Your task to perform on an android device: open the mobile data screen to see how much data has been used Image 0: 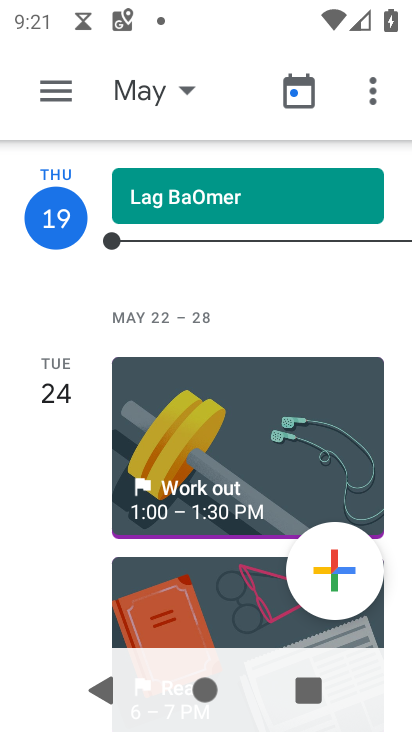
Step 0: press home button
Your task to perform on an android device: open the mobile data screen to see how much data has been used Image 1: 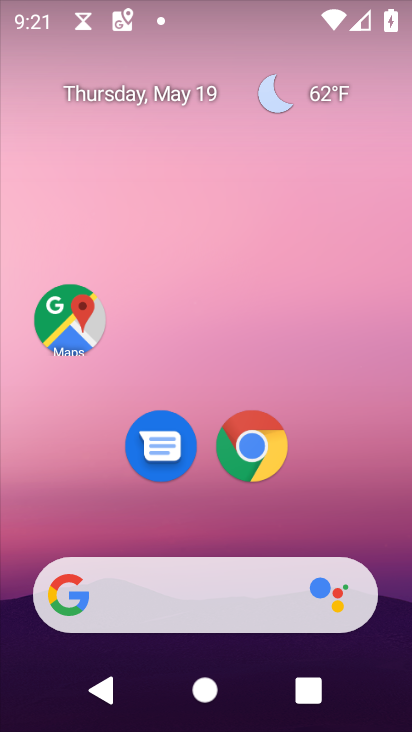
Step 1: drag from (222, 538) to (204, 17)
Your task to perform on an android device: open the mobile data screen to see how much data has been used Image 2: 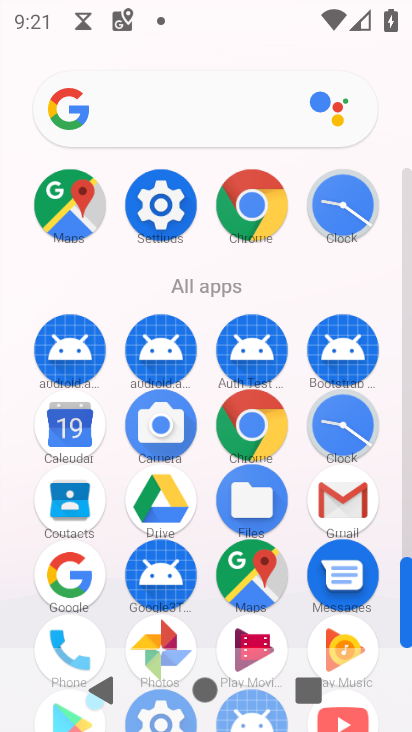
Step 2: click (157, 199)
Your task to perform on an android device: open the mobile data screen to see how much data has been used Image 3: 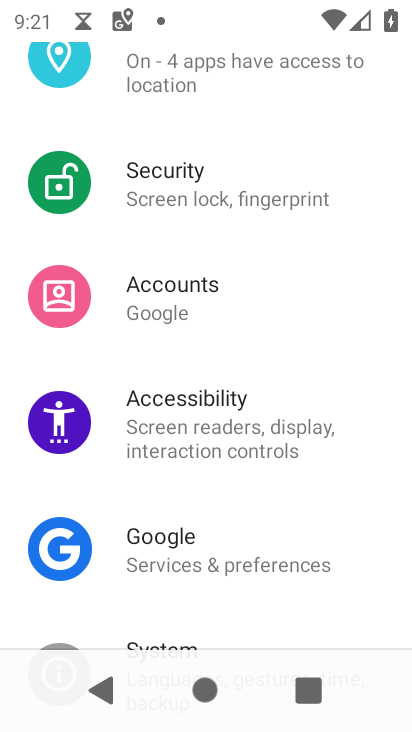
Step 3: drag from (152, 210) to (185, 367)
Your task to perform on an android device: open the mobile data screen to see how much data has been used Image 4: 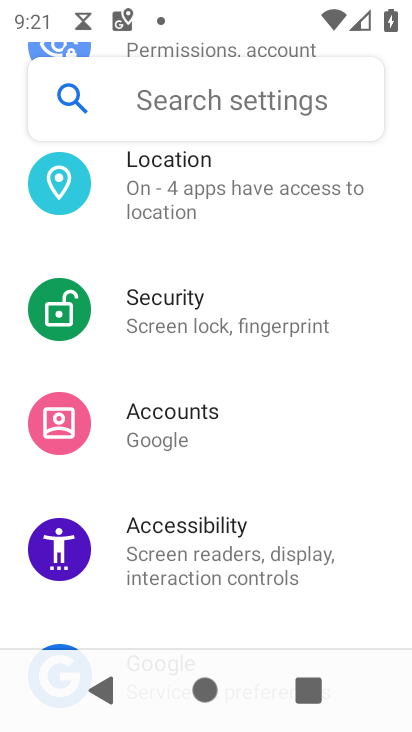
Step 4: drag from (175, 207) to (201, 454)
Your task to perform on an android device: open the mobile data screen to see how much data has been used Image 5: 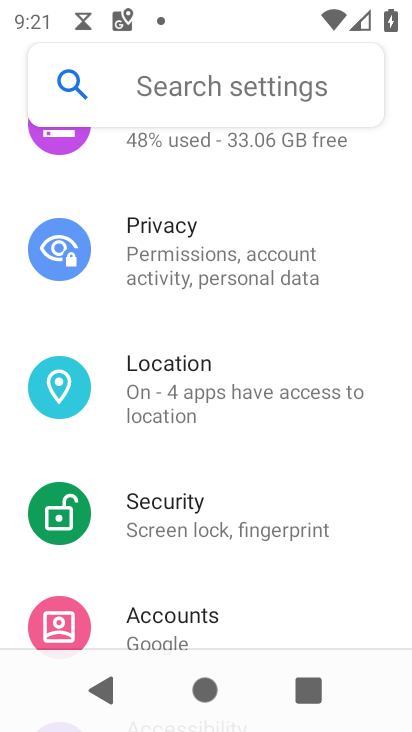
Step 5: drag from (178, 332) to (165, 505)
Your task to perform on an android device: open the mobile data screen to see how much data has been used Image 6: 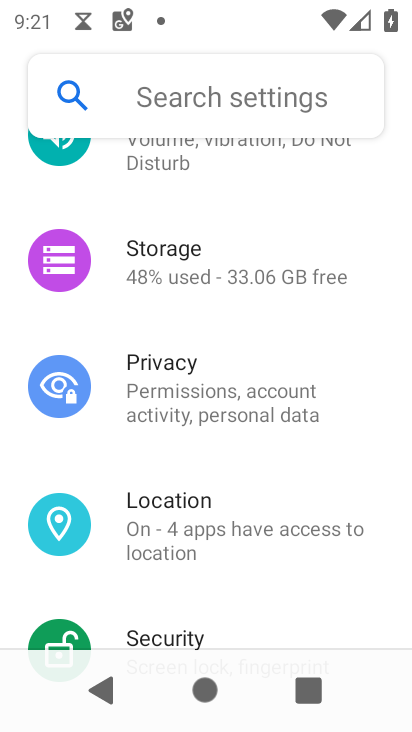
Step 6: drag from (179, 281) to (224, 440)
Your task to perform on an android device: open the mobile data screen to see how much data has been used Image 7: 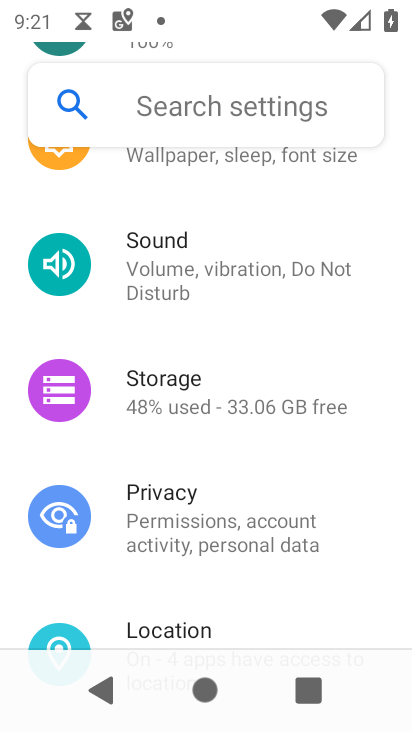
Step 7: drag from (200, 294) to (214, 428)
Your task to perform on an android device: open the mobile data screen to see how much data has been used Image 8: 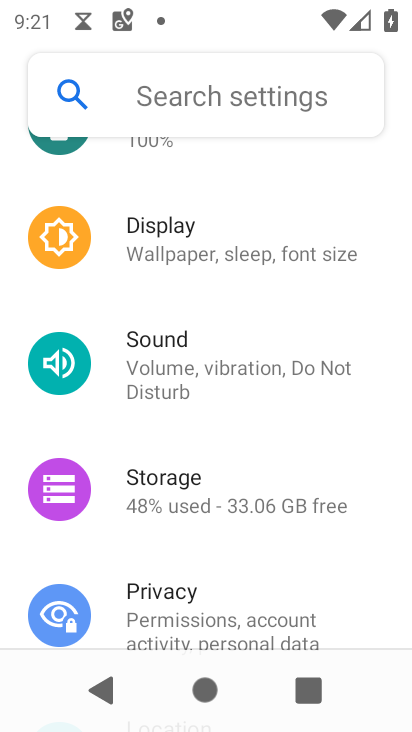
Step 8: drag from (172, 283) to (143, 529)
Your task to perform on an android device: open the mobile data screen to see how much data has been used Image 9: 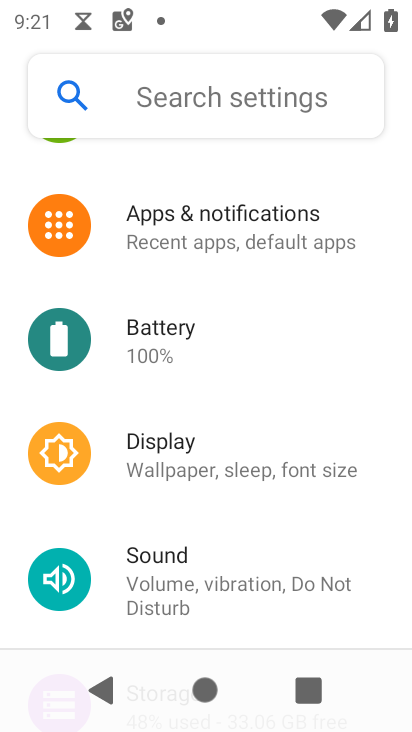
Step 9: drag from (175, 247) to (154, 386)
Your task to perform on an android device: open the mobile data screen to see how much data has been used Image 10: 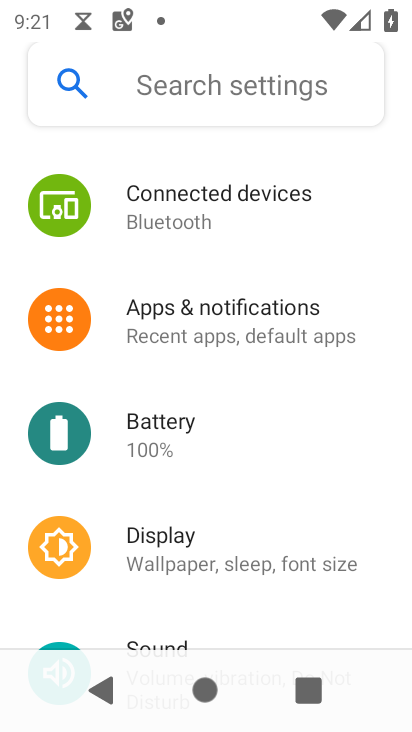
Step 10: drag from (148, 220) to (159, 389)
Your task to perform on an android device: open the mobile data screen to see how much data has been used Image 11: 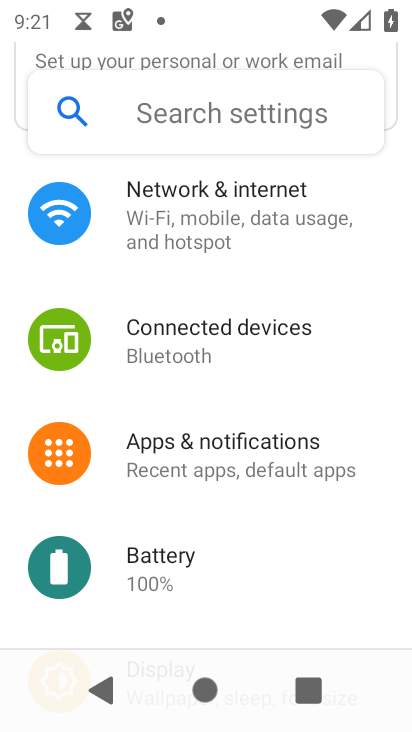
Step 11: click (150, 207)
Your task to perform on an android device: open the mobile data screen to see how much data has been used Image 12: 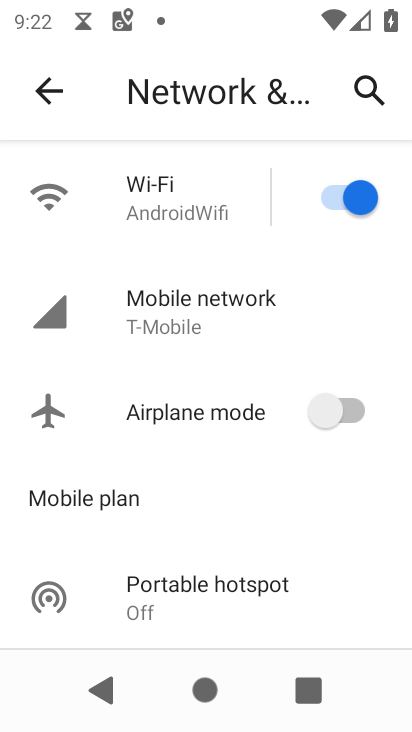
Step 12: click (146, 293)
Your task to perform on an android device: open the mobile data screen to see how much data has been used Image 13: 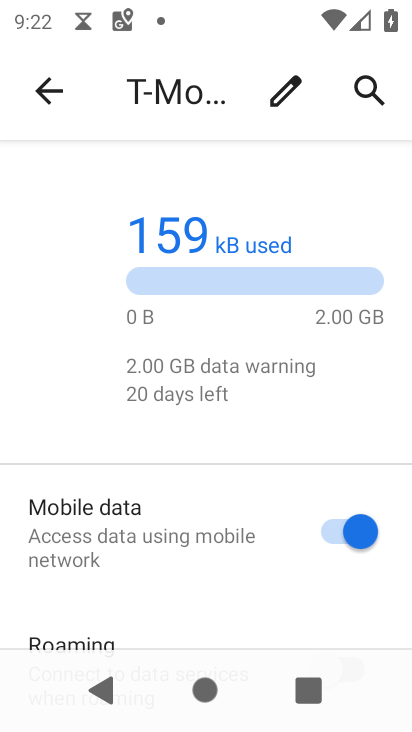
Step 13: drag from (211, 542) to (204, 190)
Your task to perform on an android device: open the mobile data screen to see how much data has been used Image 14: 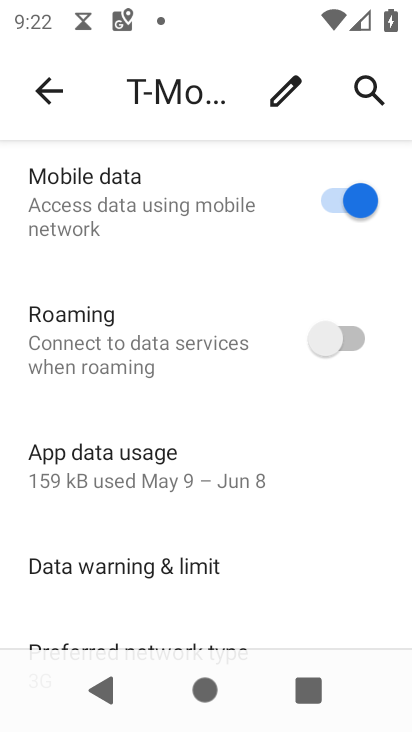
Step 14: drag from (206, 537) to (192, 316)
Your task to perform on an android device: open the mobile data screen to see how much data has been used Image 15: 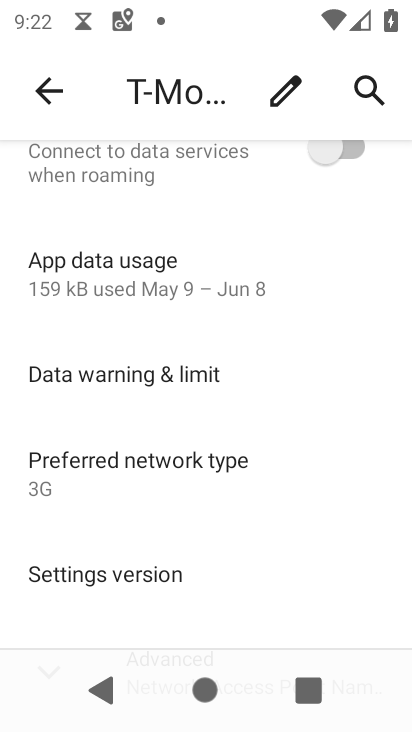
Step 15: click (171, 269)
Your task to perform on an android device: open the mobile data screen to see how much data has been used Image 16: 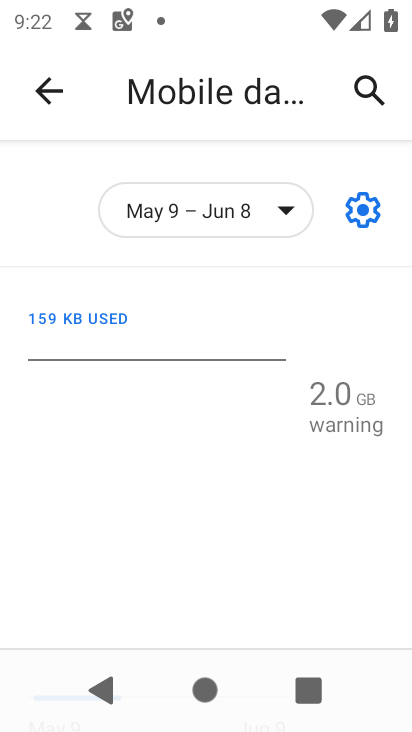
Step 16: task complete